Your task to perform on an android device: open the mobile data screen to see how much data has been used Image 0: 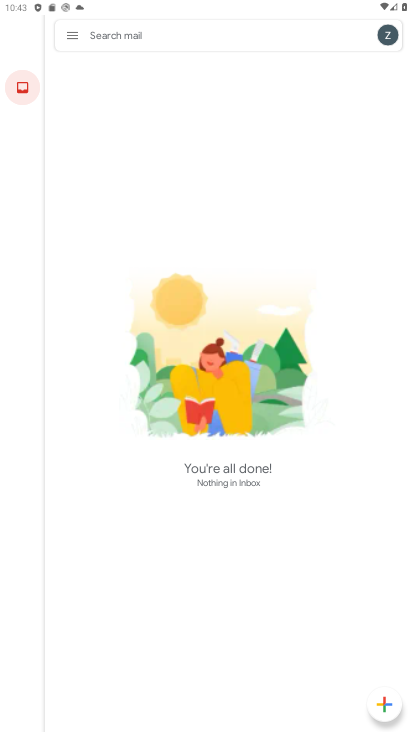
Step 0: task complete